Your task to perform on an android device: toggle improve location accuracy Image 0: 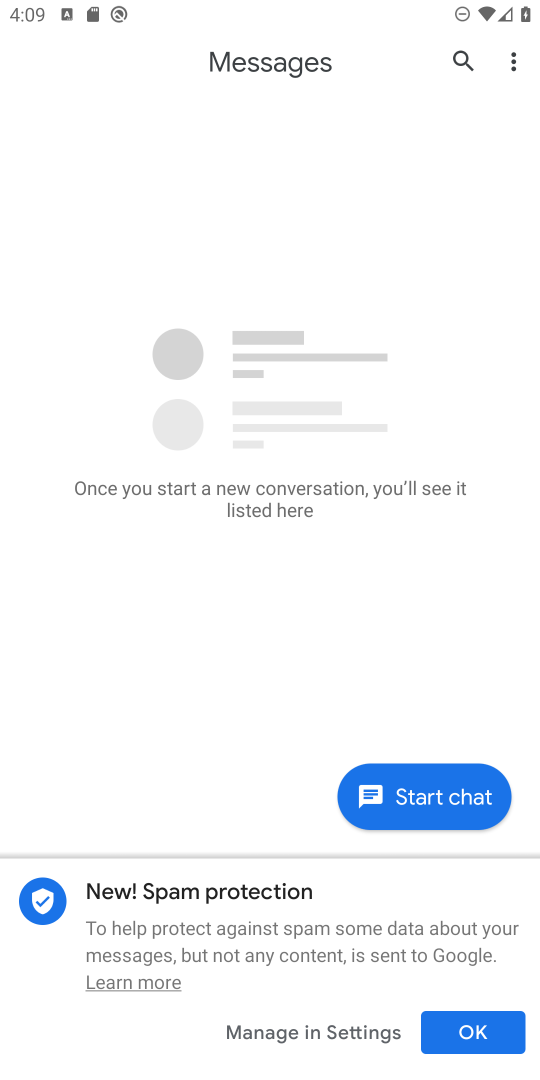
Step 0: press home button
Your task to perform on an android device: toggle improve location accuracy Image 1: 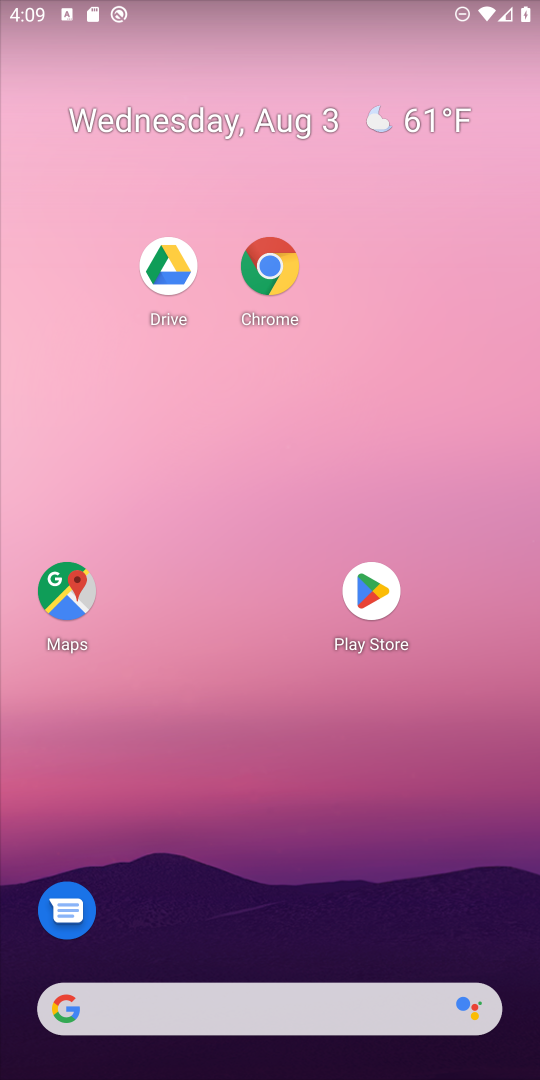
Step 1: drag from (339, 840) to (416, 10)
Your task to perform on an android device: toggle improve location accuracy Image 2: 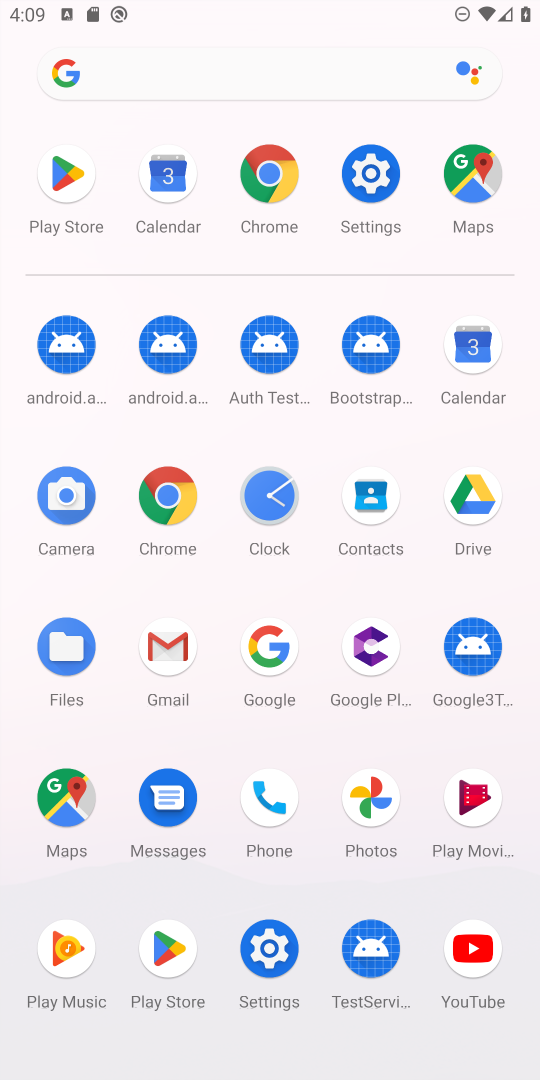
Step 2: click (360, 177)
Your task to perform on an android device: toggle improve location accuracy Image 3: 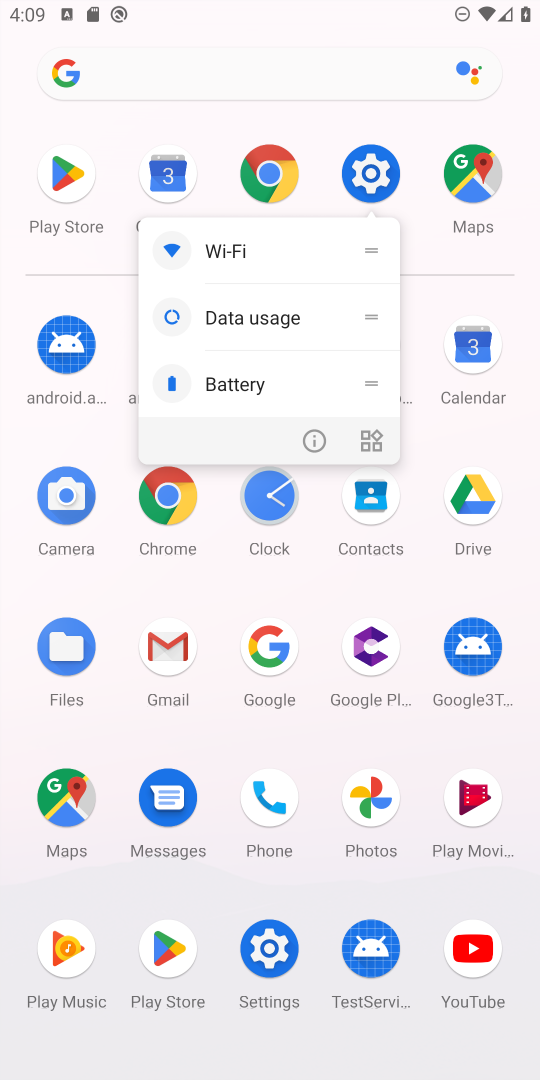
Step 3: click (363, 164)
Your task to perform on an android device: toggle improve location accuracy Image 4: 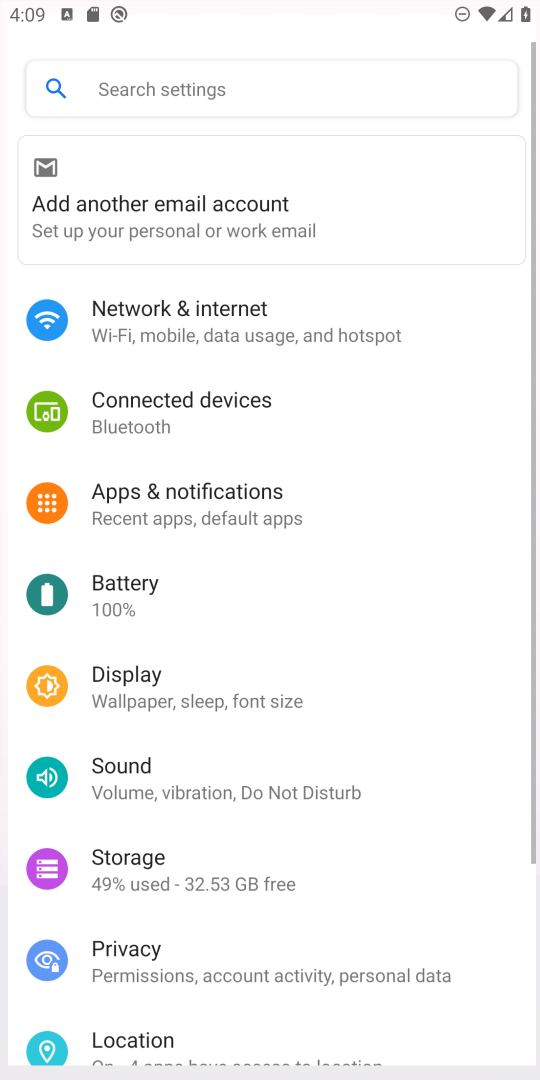
Step 4: click (371, 153)
Your task to perform on an android device: toggle improve location accuracy Image 5: 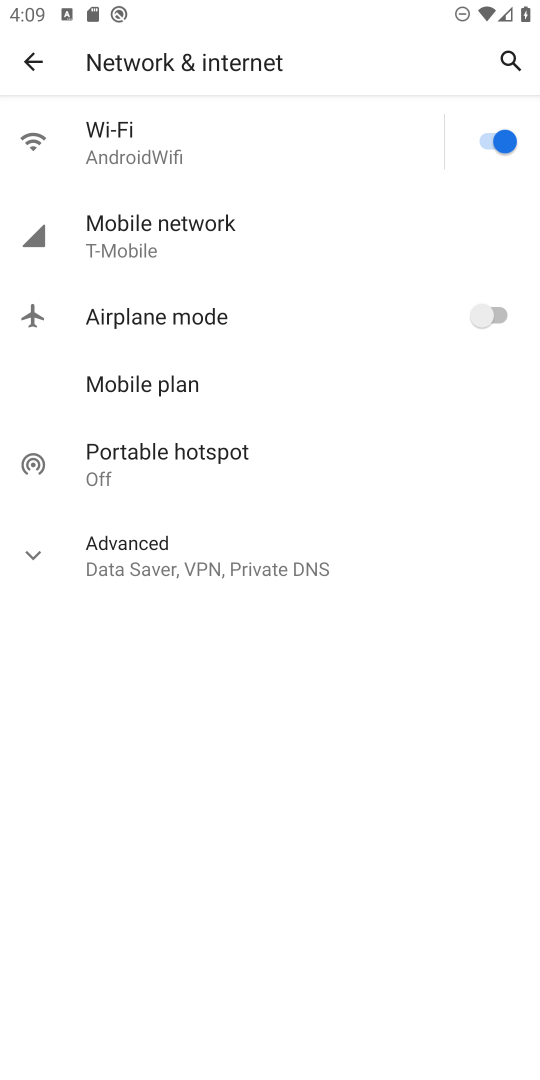
Step 5: press back button
Your task to perform on an android device: toggle improve location accuracy Image 6: 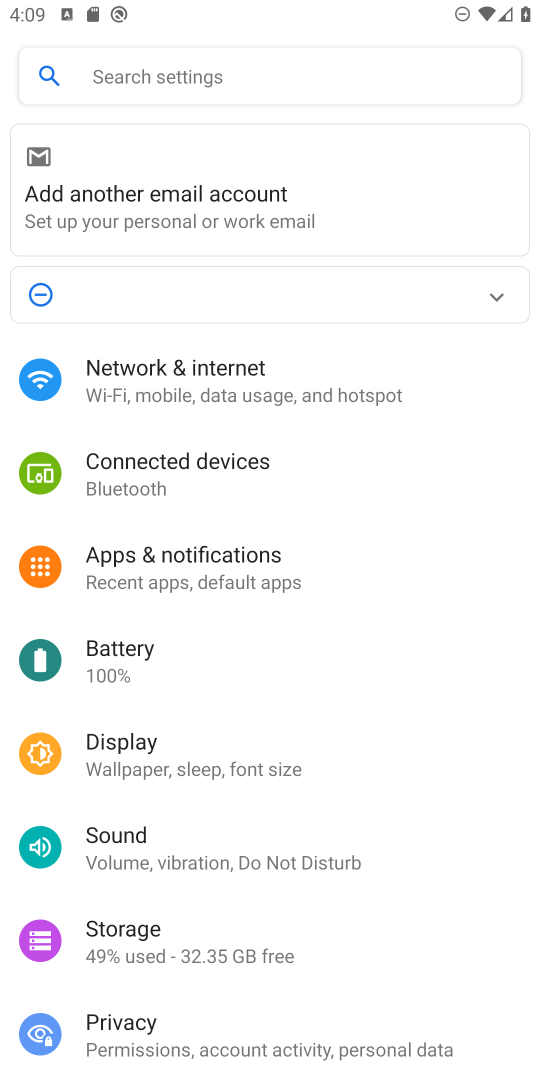
Step 6: drag from (152, 966) to (228, 168)
Your task to perform on an android device: toggle improve location accuracy Image 7: 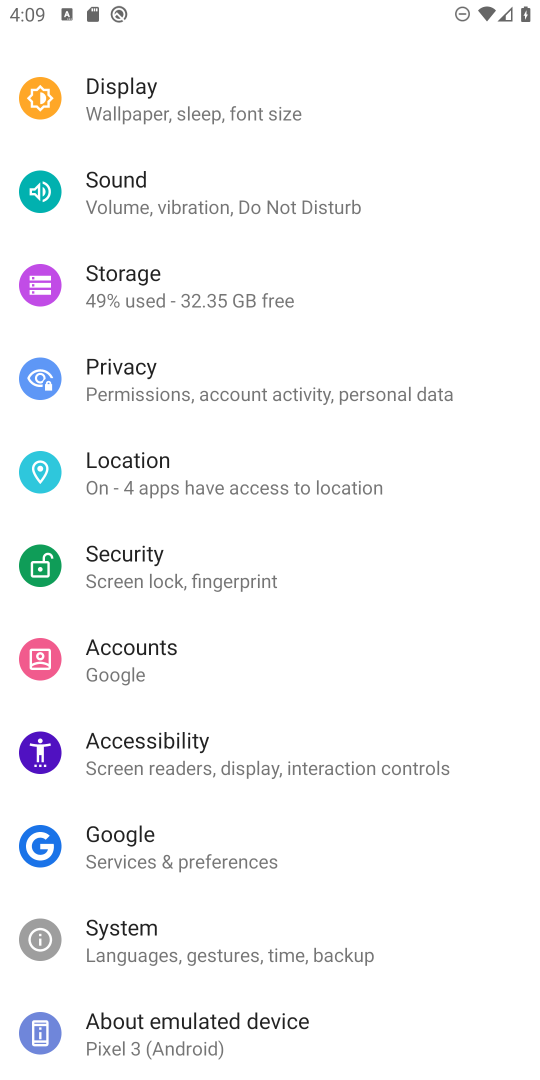
Step 7: click (165, 482)
Your task to perform on an android device: toggle improve location accuracy Image 8: 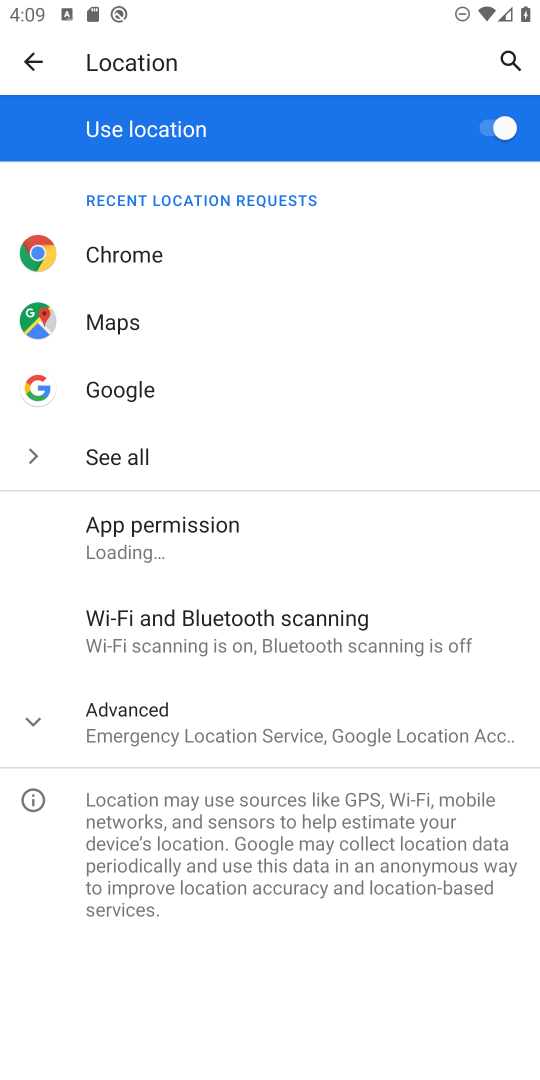
Step 8: click (236, 735)
Your task to perform on an android device: toggle improve location accuracy Image 9: 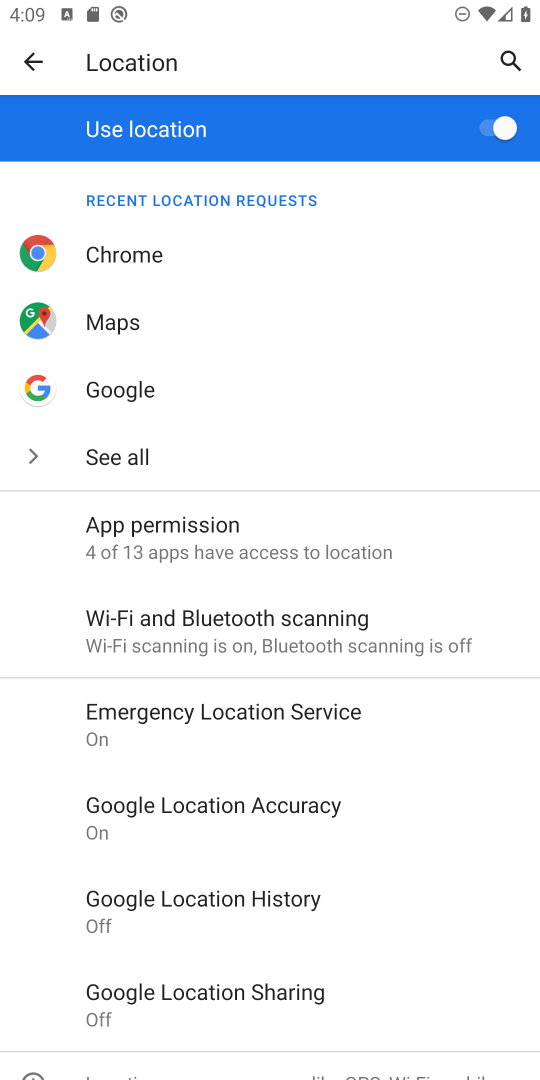
Step 9: click (279, 816)
Your task to perform on an android device: toggle improve location accuracy Image 10: 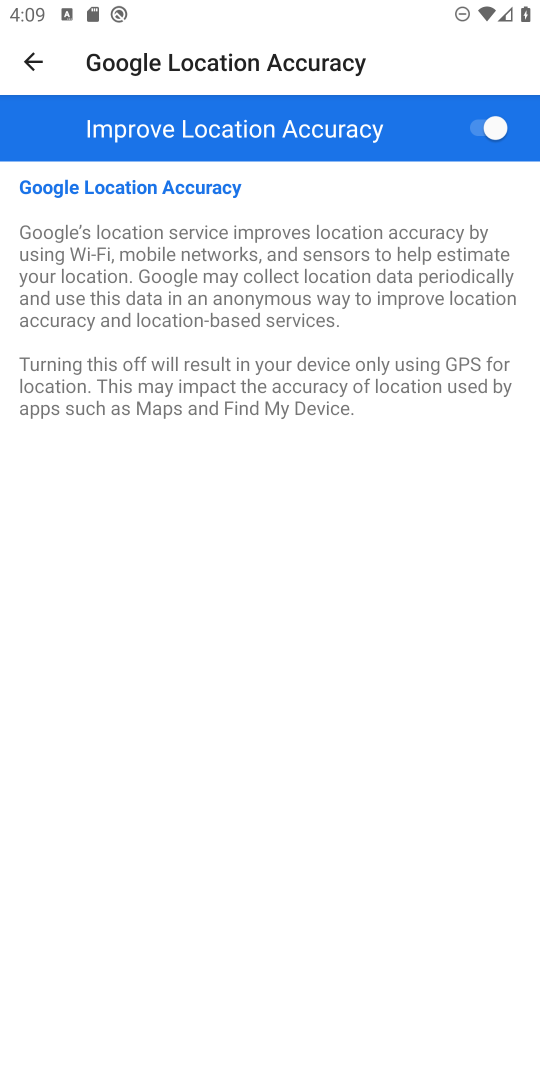
Step 10: click (499, 123)
Your task to perform on an android device: toggle improve location accuracy Image 11: 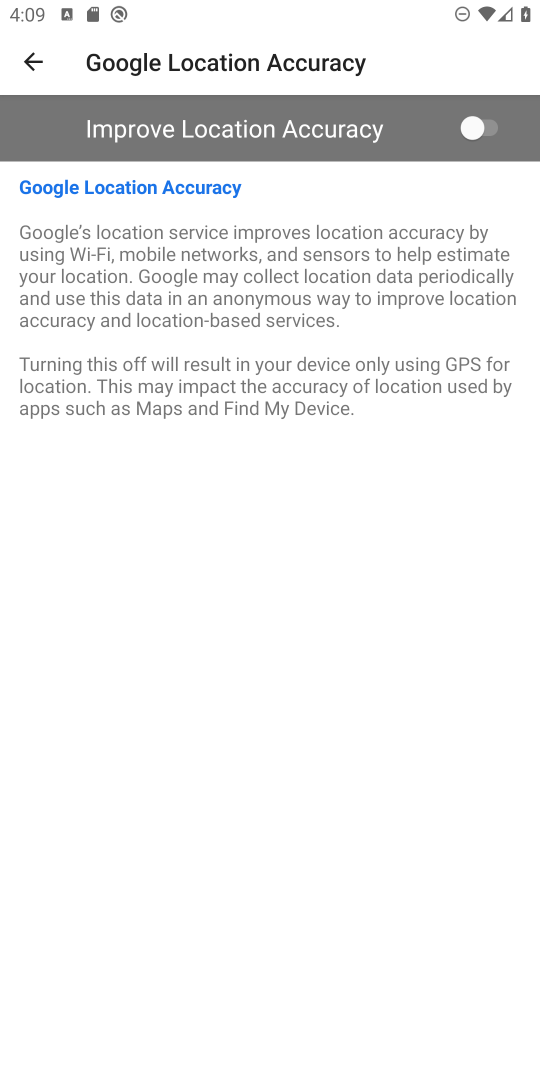
Step 11: task complete